Your task to perform on an android device: Search for seafood restaurants on Google Maps Image 0: 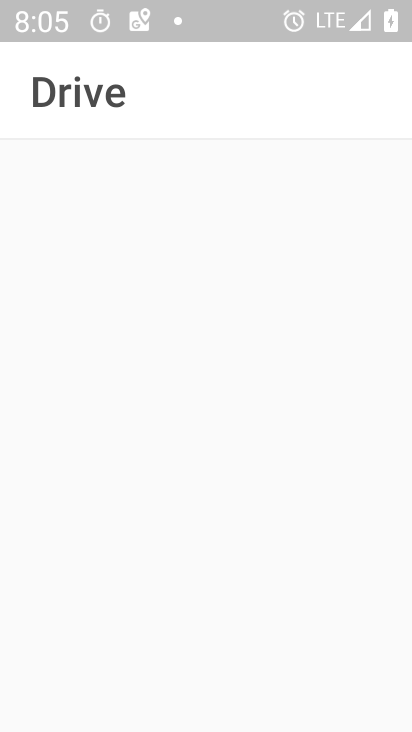
Step 0: press home button
Your task to perform on an android device: Search for seafood restaurants on Google Maps Image 1: 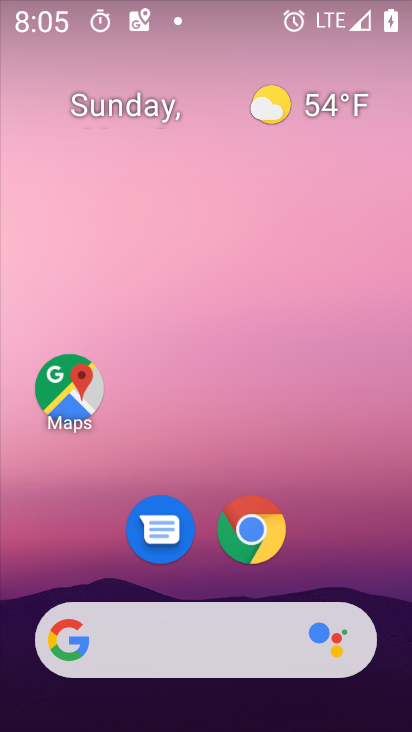
Step 1: click (72, 400)
Your task to perform on an android device: Search for seafood restaurants on Google Maps Image 2: 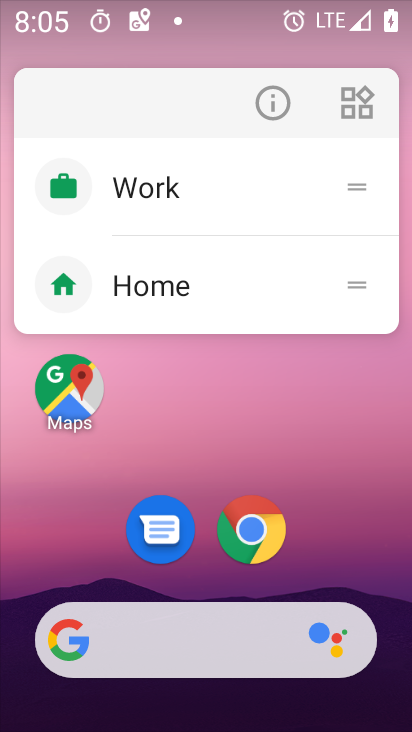
Step 2: click (72, 400)
Your task to perform on an android device: Search for seafood restaurants on Google Maps Image 3: 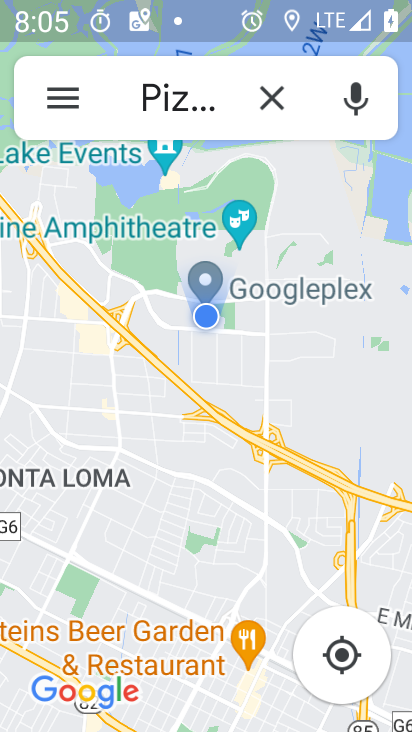
Step 3: click (257, 104)
Your task to perform on an android device: Search for seafood restaurants on Google Maps Image 4: 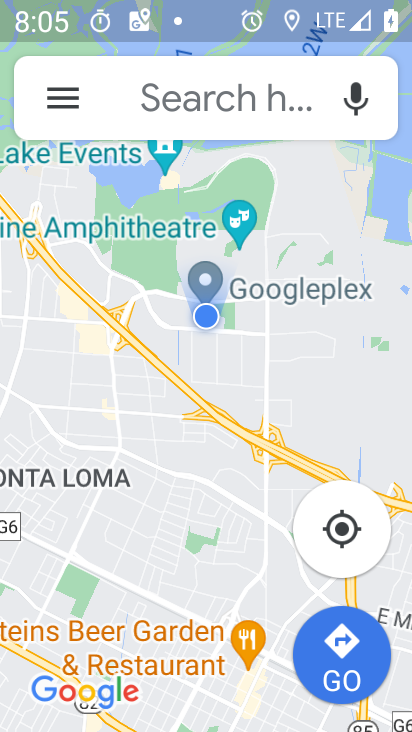
Step 4: click (126, 97)
Your task to perform on an android device: Search for seafood restaurants on Google Maps Image 5: 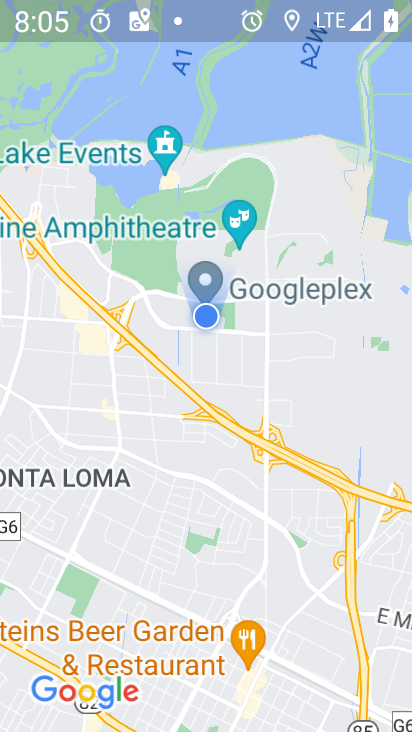
Step 5: type "seafood restaurants"
Your task to perform on an android device: Search for seafood restaurants on Google Maps Image 6: 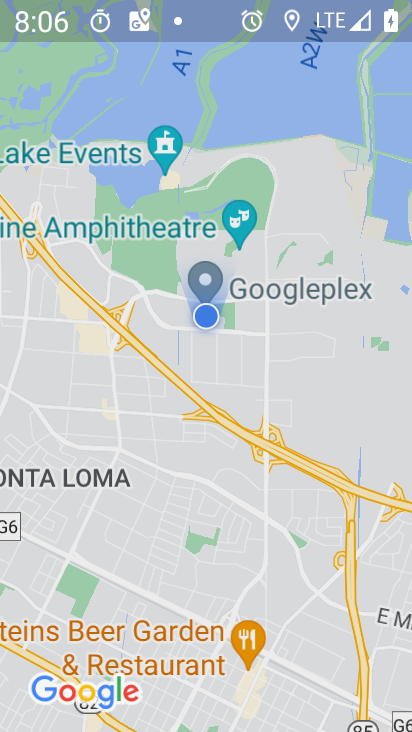
Step 6: drag from (336, 347) to (325, 268)
Your task to perform on an android device: Search for seafood restaurants on Google Maps Image 7: 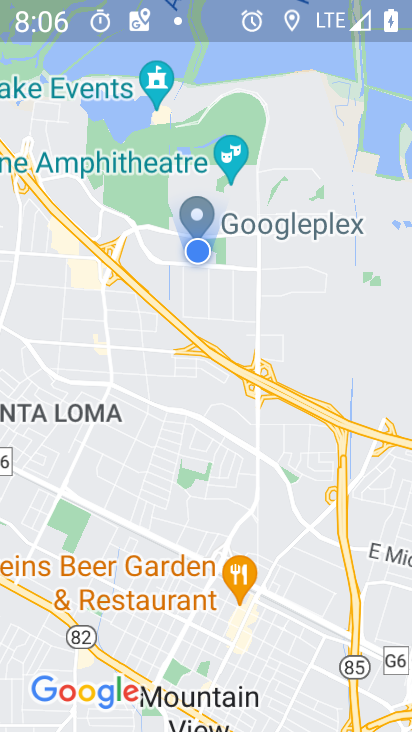
Step 7: drag from (228, 229) to (280, 514)
Your task to perform on an android device: Search for seafood restaurants on Google Maps Image 8: 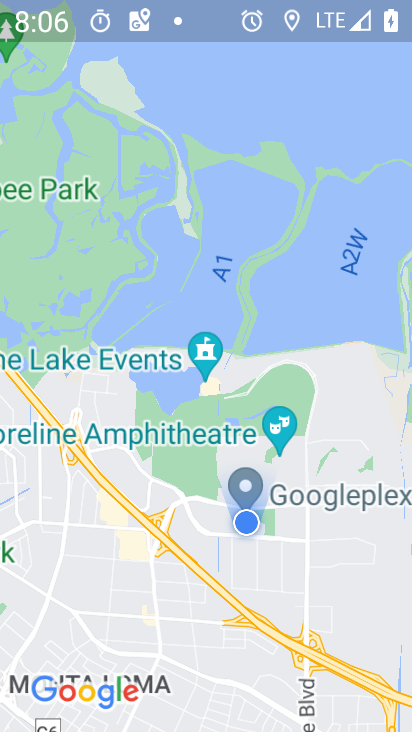
Step 8: press back button
Your task to perform on an android device: Search for seafood restaurants on Google Maps Image 9: 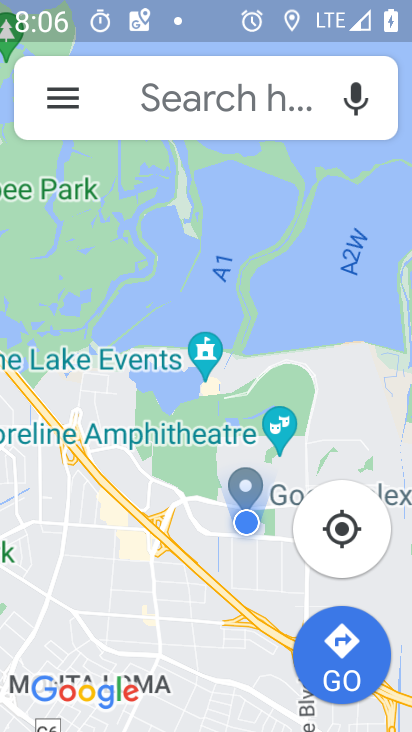
Step 9: click (219, 118)
Your task to perform on an android device: Search for seafood restaurants on Google Maps Image 10: 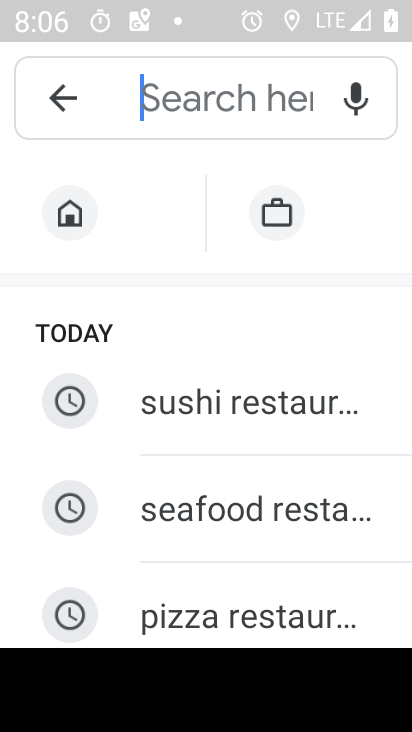
Step 10: type "seafood restaurants"
Your task to perform on an android device: Search for seafood restaurants on Google Maps Image 11: 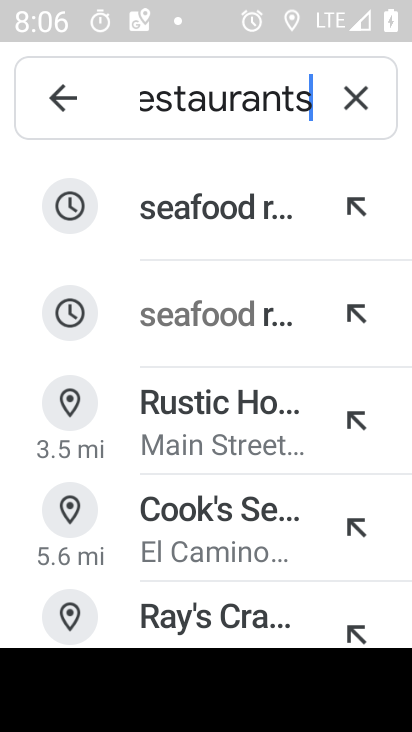
Step 11: click (257, 235)
Your task to perform on an android device: Search for seafood restaurants on Google Maps Image 12: 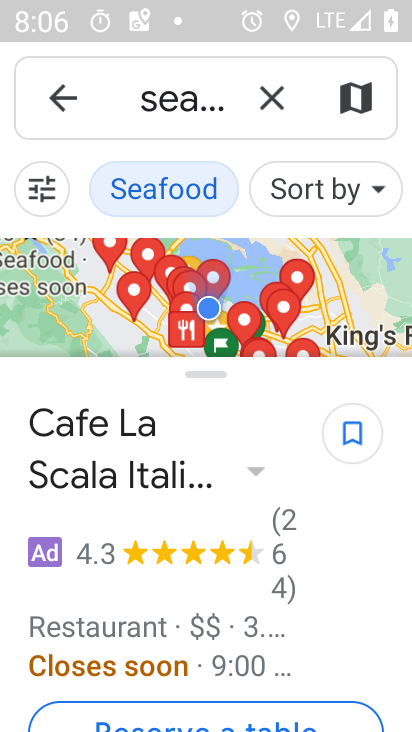
Step 12: task complete